Your task to perform on an android device: Open Youtube and go to the subscriptions tab Image 0: 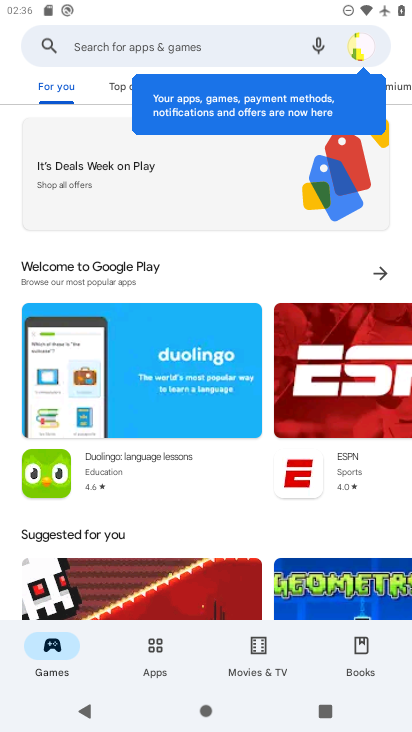
Step 0: press home button
Your task to perform on an android device: Open Youtube and go to the subscriptions tab Image 1: 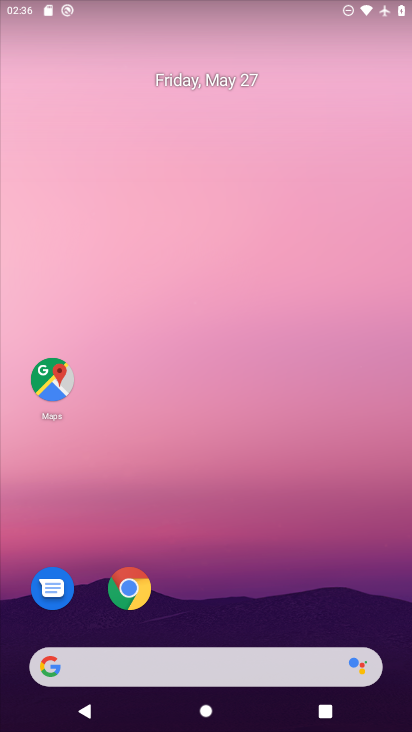
Step 1: drag from (384, 625) to (347, 23)
Your task to perform on an android device: Open Youtube and go to the subscriptions tab Image 2: 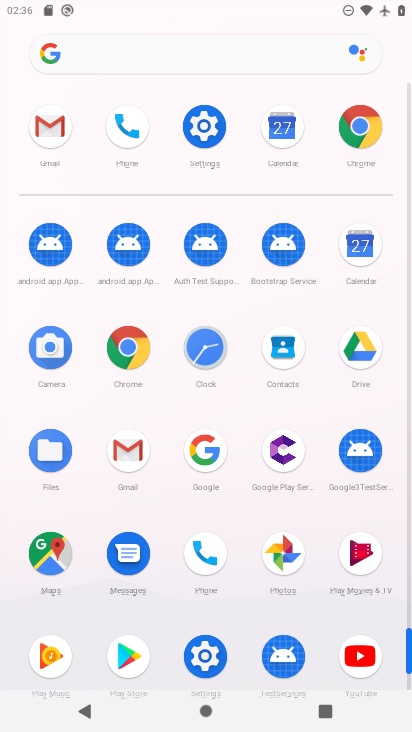
Step 2: click (358, 657)
Your task to perform on an android device: Open Youtube and go to the subscriptions tab Image 3: 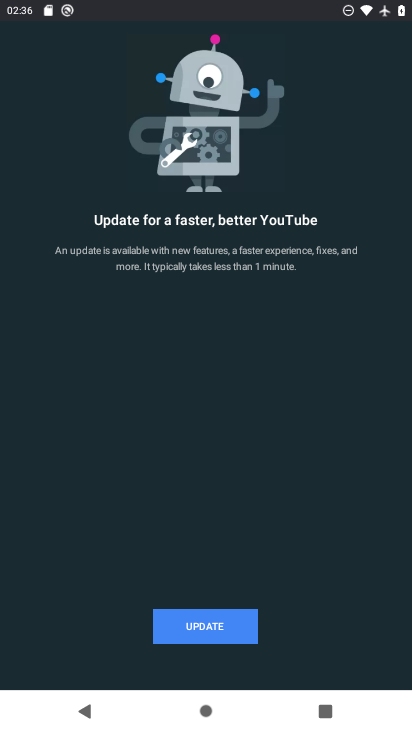
Step 3: click (187, 626)
Your task to perform on an android device: Open Youtube and go to the subscriptions tab Image 4: 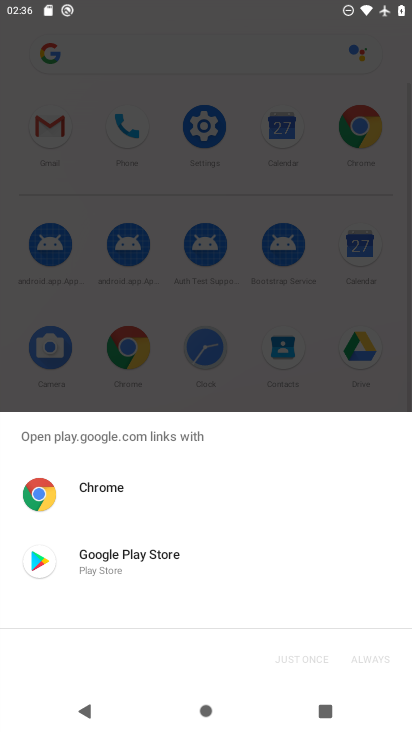
Step 4: click (116, 544)
Your task to perform on an android device: Open Youtube and go to the subscriptions tab Image 5: 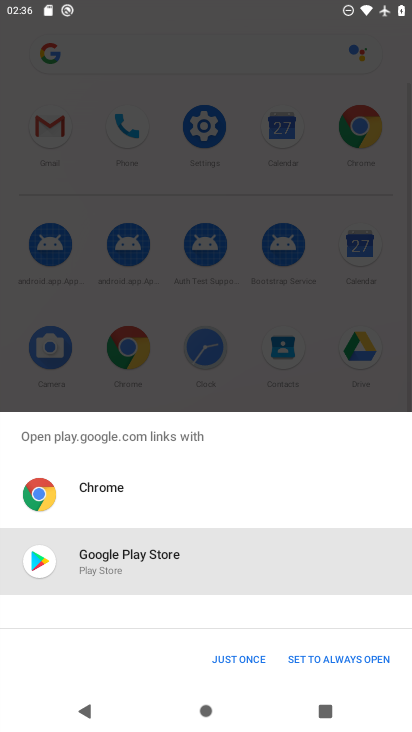
Step 5: click (239, 657)
Your task to perform on an android device: Open Youtube and go to the subscriptions tab Image 6: 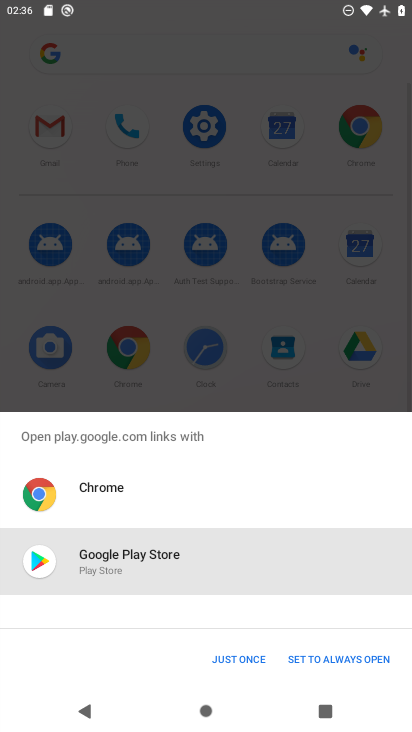
Step 6: click (239, 657)
Your task to perform on an android device: Open Youtube and go to the subscriptions tab Image 7: 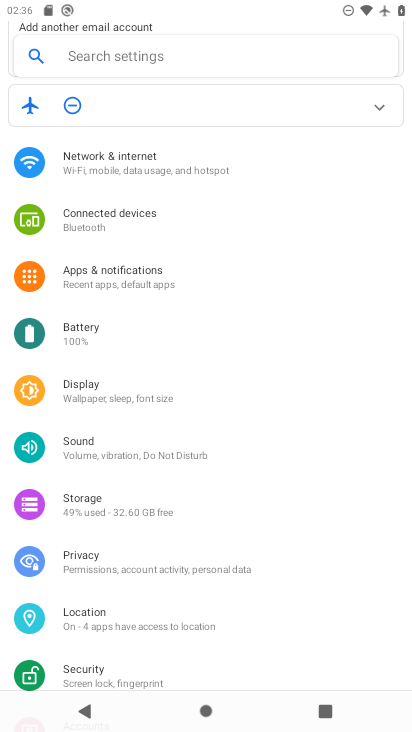
Step 7: press home button
Your task to perform on an android device: Open Youtube and go to the subscriptions tab Image 8: 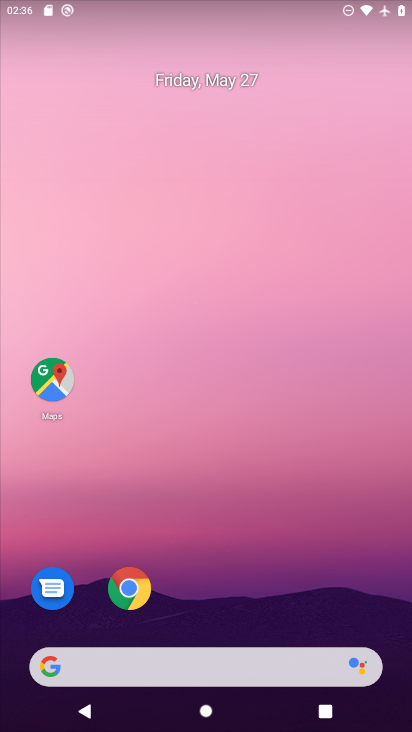
Step 8: drag from (351, 607) to (338, 103)
Your task to perform on an android device: Open Youtube and go to the subscriptions tab Image 9: 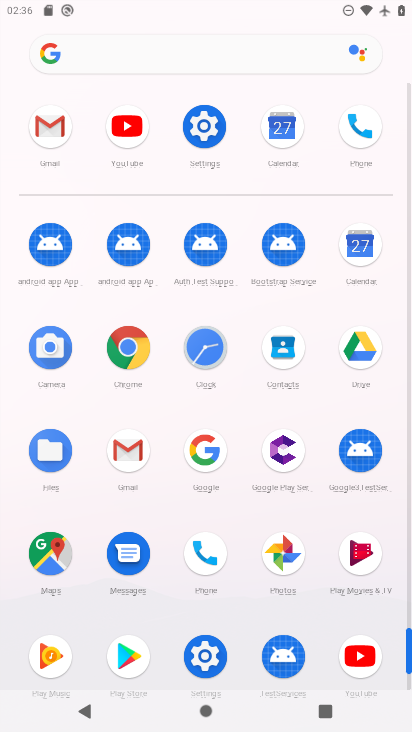
Step 9: click (358, 660)
Your task to perform on an android device: Open Youtube and go to the subscriptions tab Image 10: 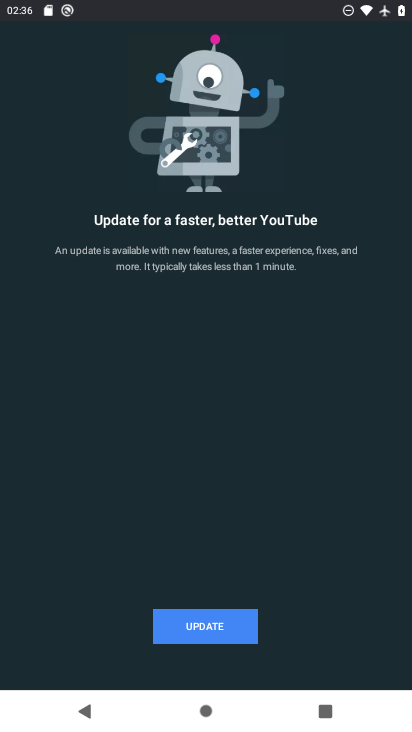
Step 10: click (206, 631)
Your task to perform on an android device: Open Youtube and go to the subscriptions tab Image 11: 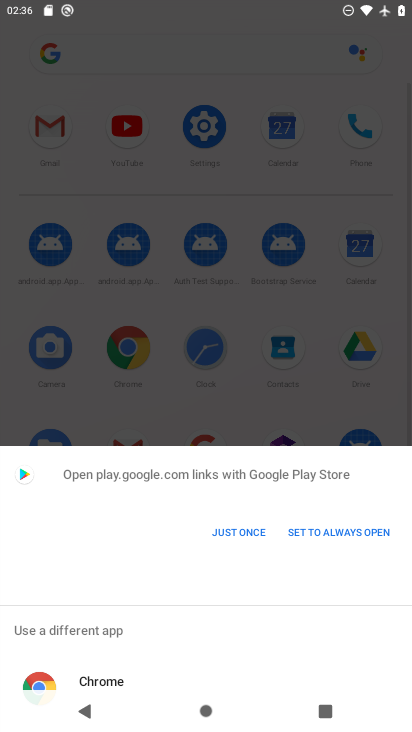
Step 11: click (236, 519)
Your task to perform on an android device: Open Youtube and go to the subscriptions tab Image 12: 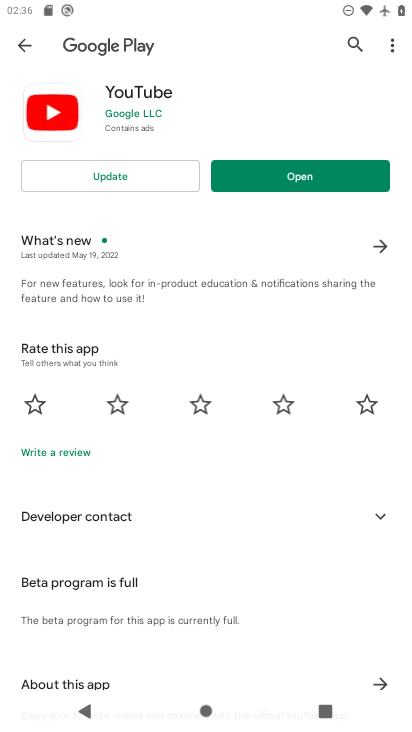
Step 12: click (109, 170)
Your task to perform on an android device: Open Youtube and go to the subscriptions tab Image 13: 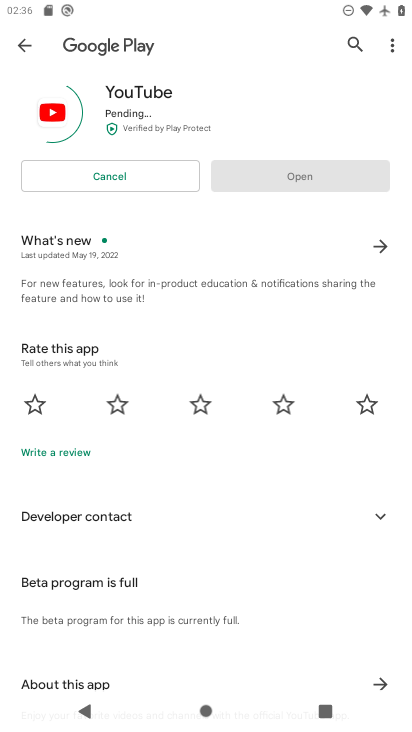
Step 13: drag from (236, 582) to (246, 320)
Your task to perform on an android device: Open Youtube and go to the subscriptions tab Image 14: 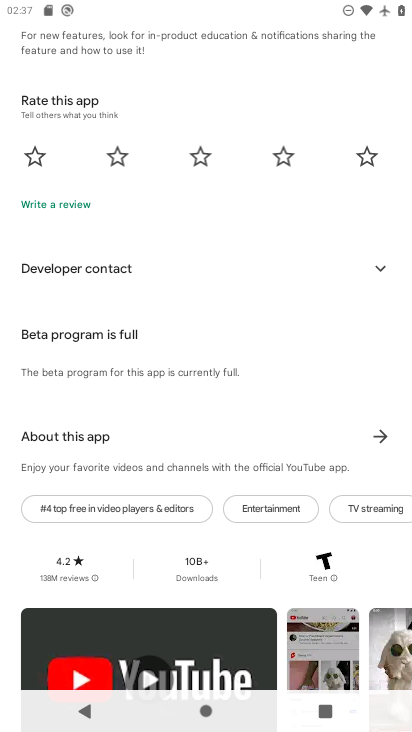
Step 14: drag from (246, 320) to (249, 553)
Your task to perform on an android device: Open Youtube and go to the subscriptions tab Image 15: 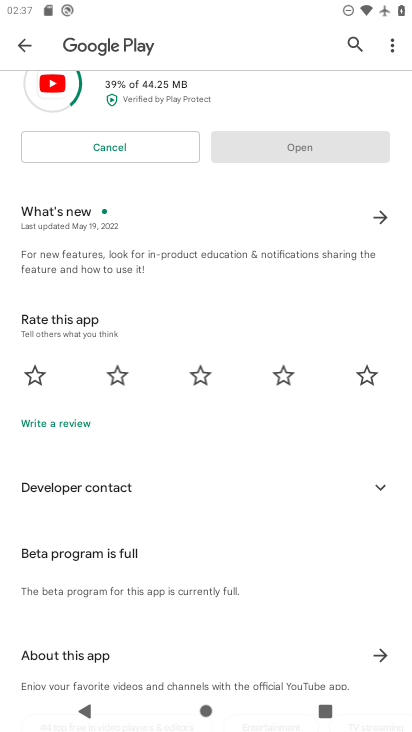
Step 15: drag from (219, 218) to (226, 467)
Your task to perform on an android device: Open Youtube and go to the subscriptions tab Image 16: 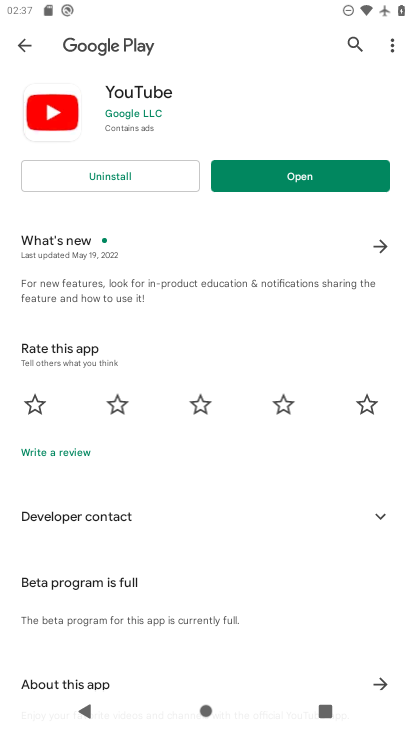
Step 16: click (299, 169)
Your task to perform on an android device: Open Youtube and go to the subscriptions tab Image 17: 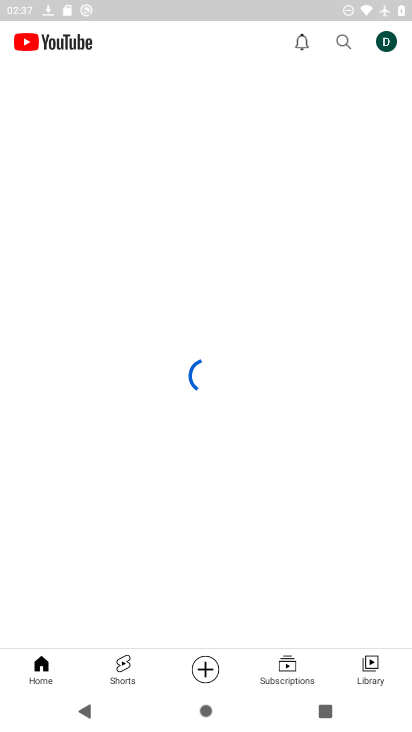
Step 17: click (283, 666)
Your task to perform on an android device: Open Youtube and go to the subscriptions tab Image 18: 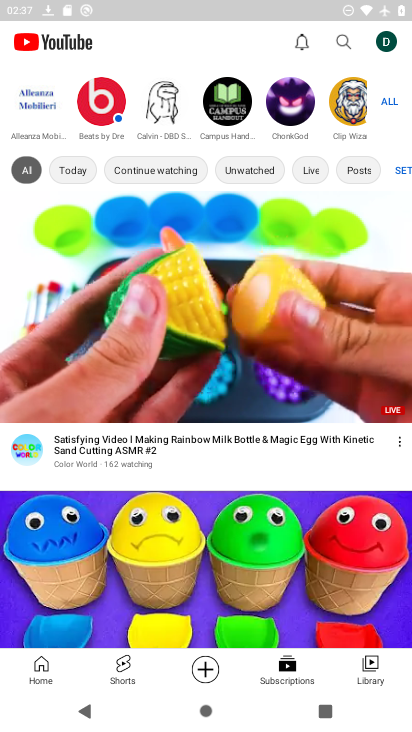
Step 18: task complete